Your task to perform on an android device: open a new tab in the chrome app Image 0: 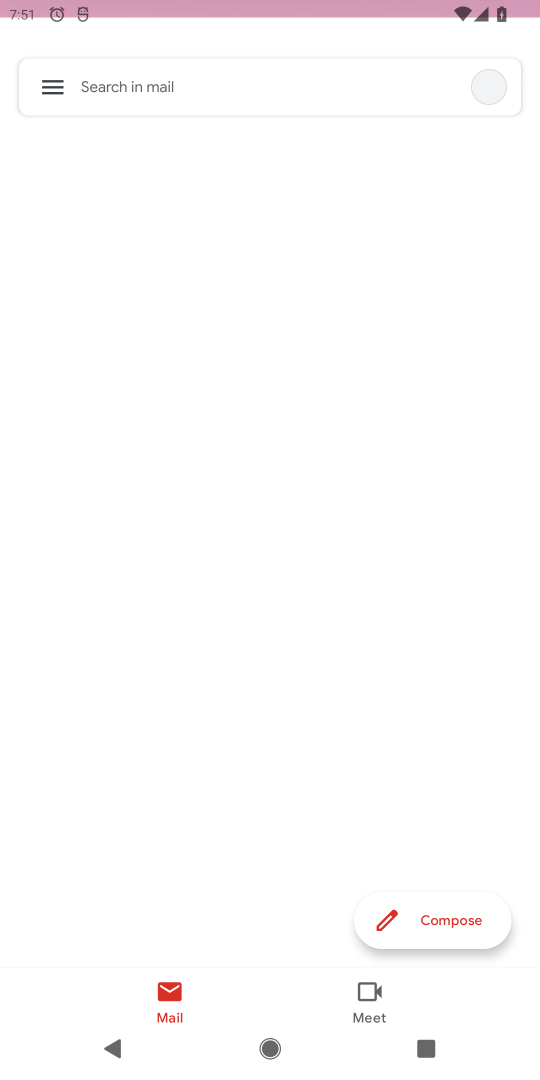
Step 0: press home button
Your task to perform on an android device: open a new tab in the chrome app Image 1: 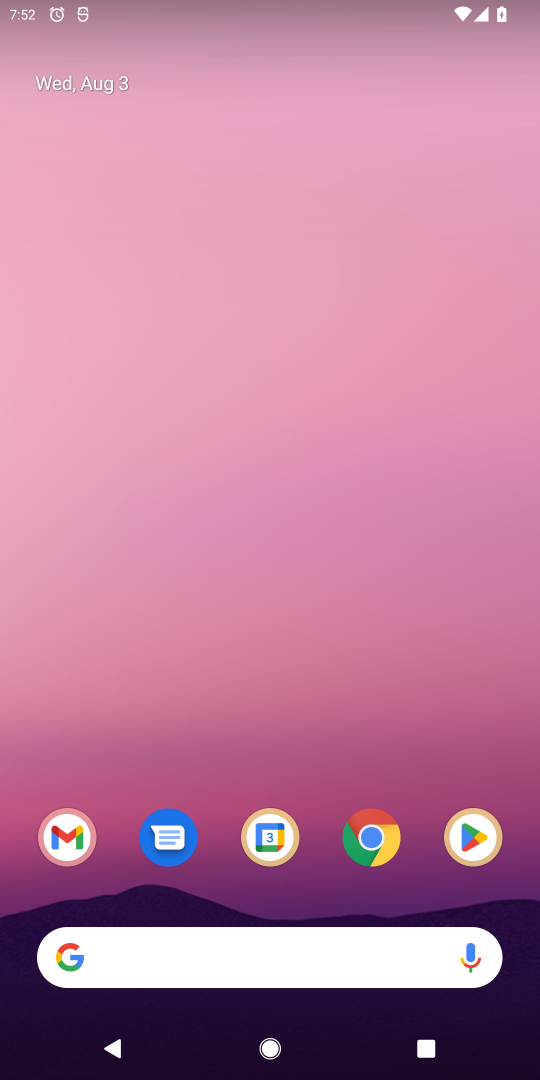
Step 1: click (370, 838)
Your task to perform on an android device: open a new tab in the chrome app Image 2: 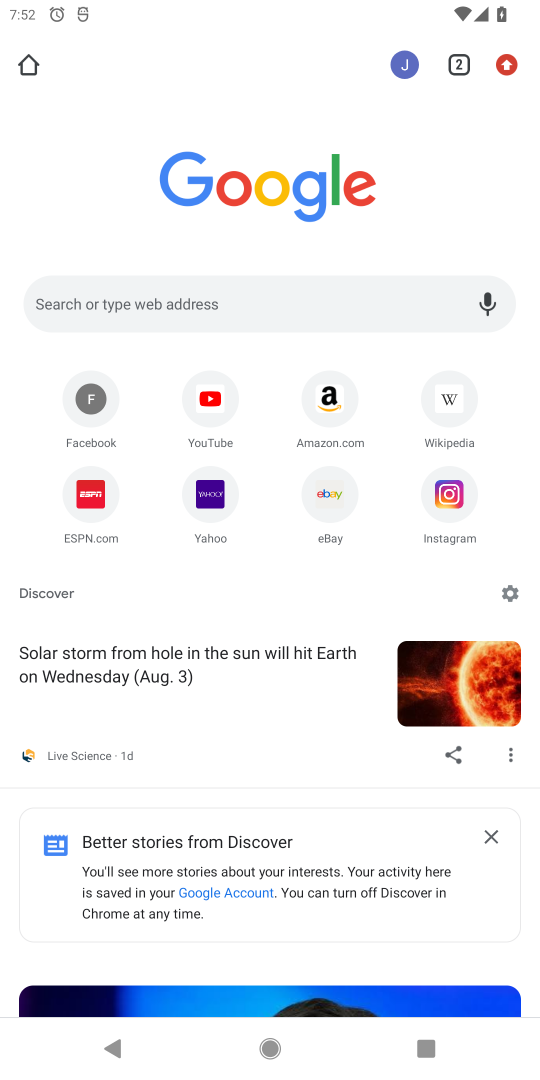
Step 2: click (457, 54)
Your task to perform on an android device: open a new tab in the chrome app Image 3: 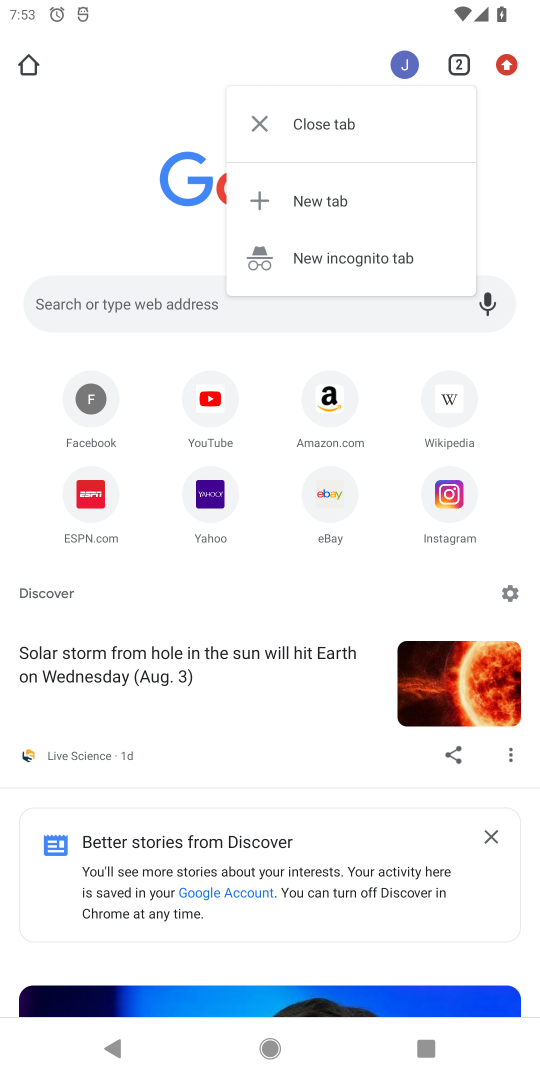
Step 3: click (301, 204)
Your task to perform on an android device: open a new tab in the chrome app Image 4: 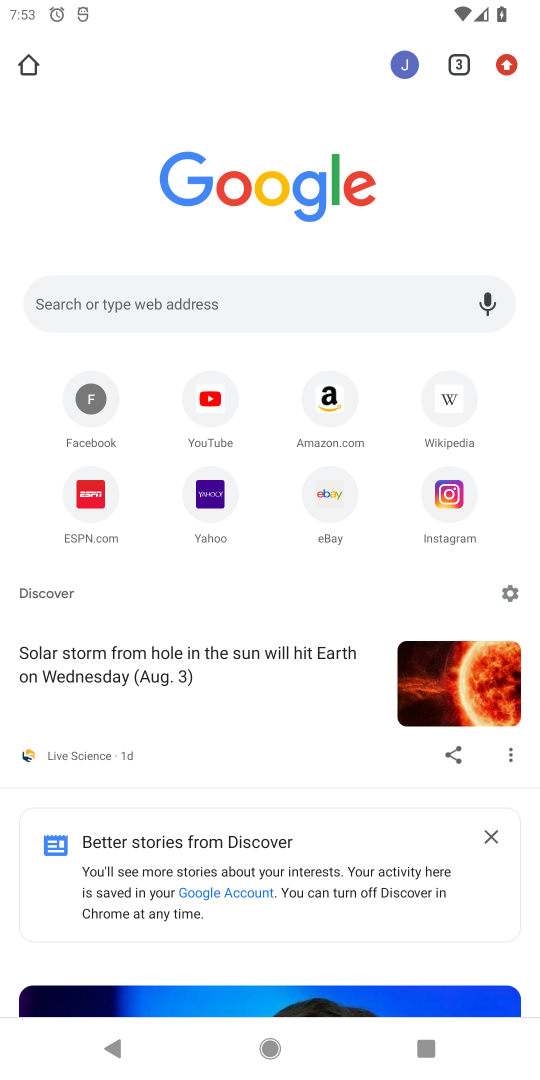
Step 4: task complete